Your task to perform on an android device: Open the stopwatch Image 0: 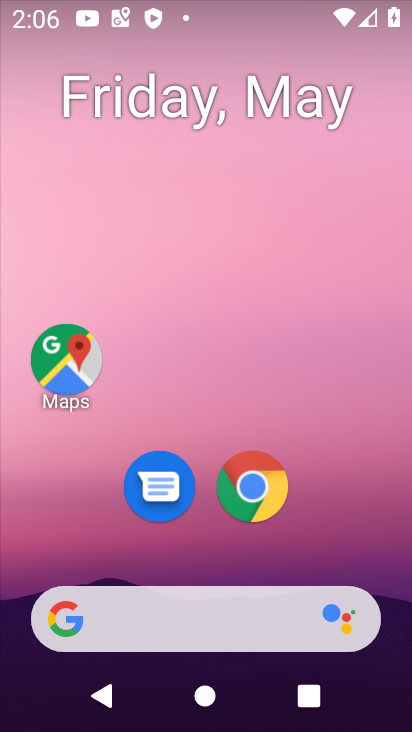
Step 0: drag from (400, 669) to (358, 326)
Your task to perform on an android device: Open the stopwatch Image 1: 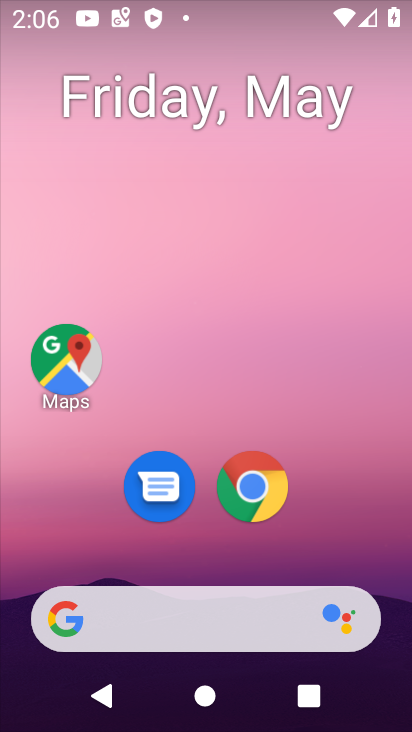
Step 1: drag from (384, 701) to (341, 307)
Your task to perform on an android device: Open the stopwatch Image 2: 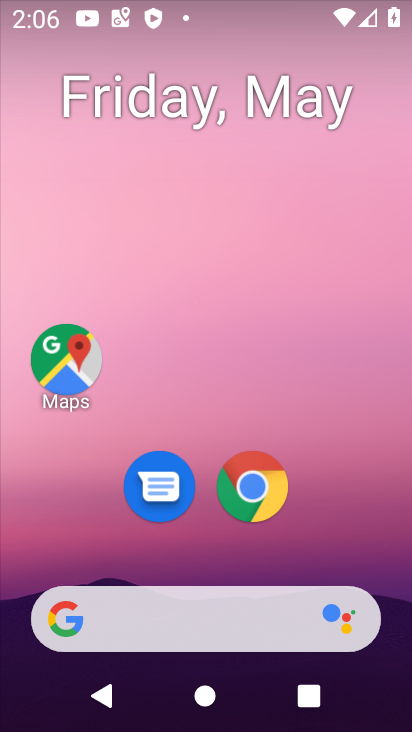
Step 2: drag from (378, 609) to (315, 72)
Your task to perform on an android device: Open the stopwatch Image 3: 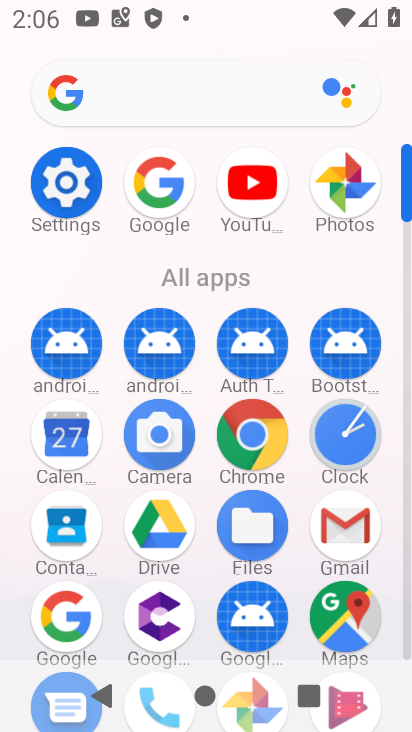
Step 3: click (330, 442)
Your task to perform on an android device: Open the stopwatch Image 4: 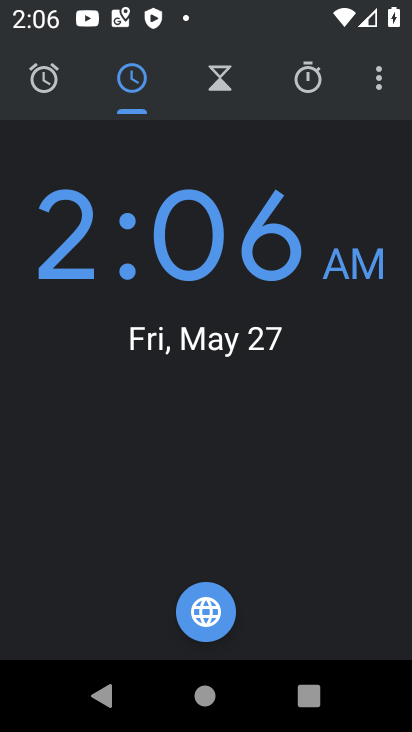
Step 4: click (318, 77)
Your task to perform on an android device: Open the stopwatch Image 5: 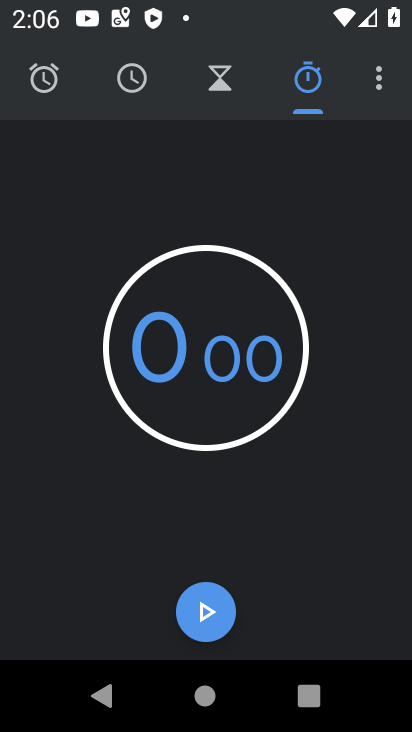
Step 5: click (191, 612)
Your task to perform on an android device: Open the stopwatch Image 6: 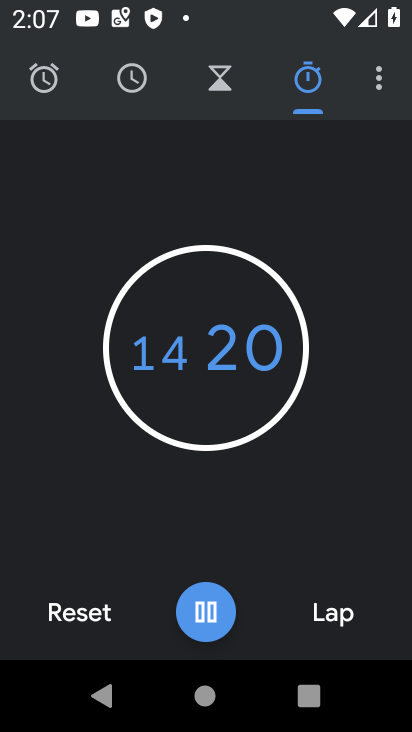
Step 6: task complete